Your task to perform on an android device: star an email in the gmail app Image 0: 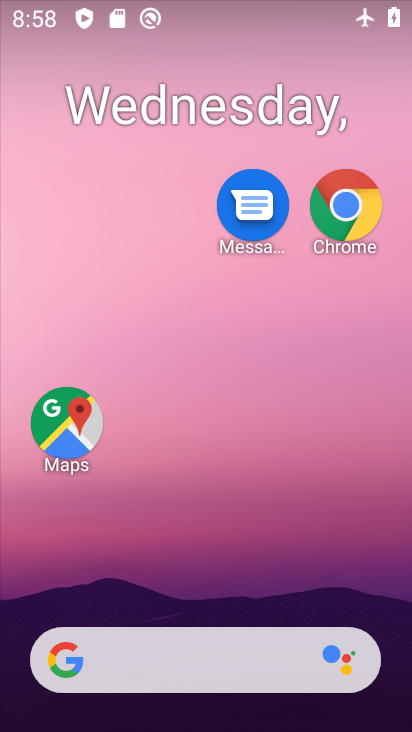
Step 0: drag from (237, 397) to (248, 103)
Your task to perform on an android device: star an email in the gmail app Image 1: 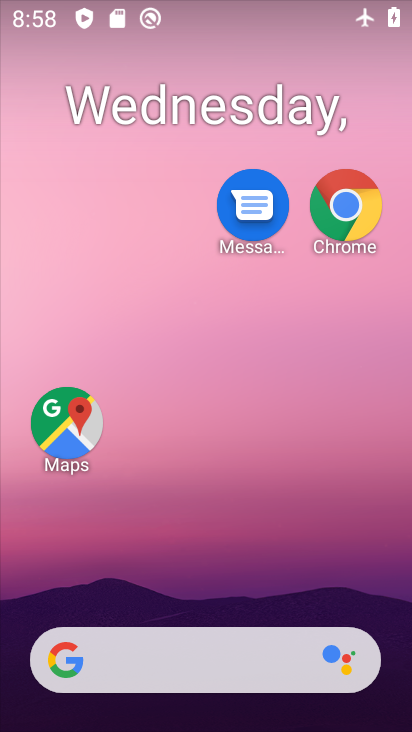
Step 1: drag from (213, 608) to (209, 135)
Your task to perform on an android device: star an email in the gmail app Image 2: 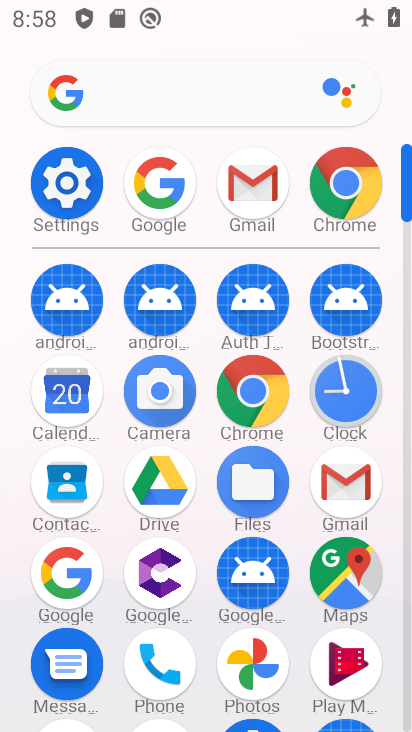
Step 2: click (353, 481)
Your task to perform on an android device: star an email in the gmail app Image 3: 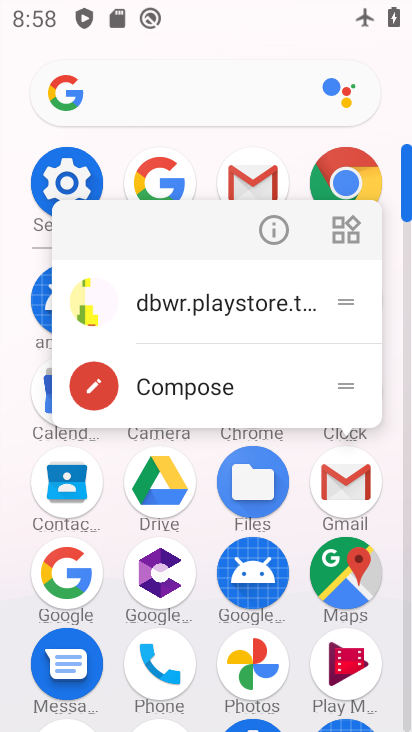
Step 3: click (272, 231)
Your task to perform on an android device: star an email in the gmail app Image 4: 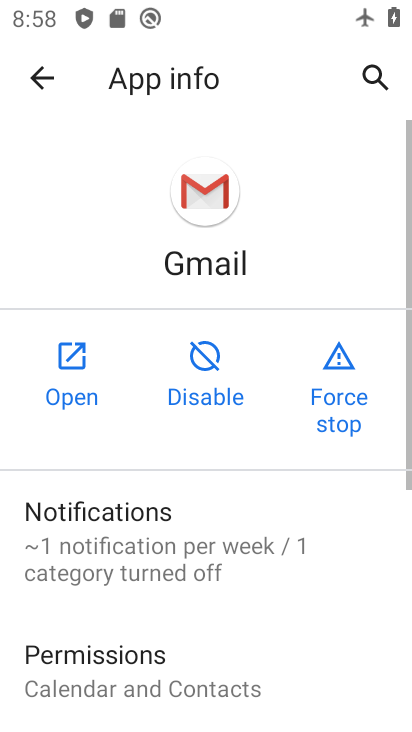
Step 4: click (68, 338)
Your task to perform on an android device: star an email in the gmail app Image 5: 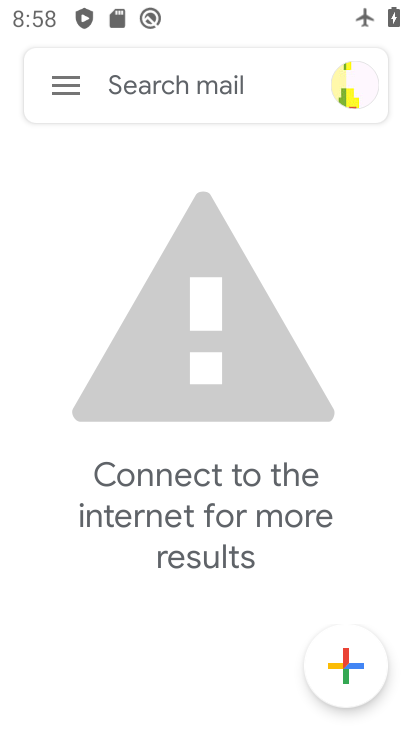
Step 5: click (45, 94)
Your task to perform on an android device: star an email in the gmail app Image 6: 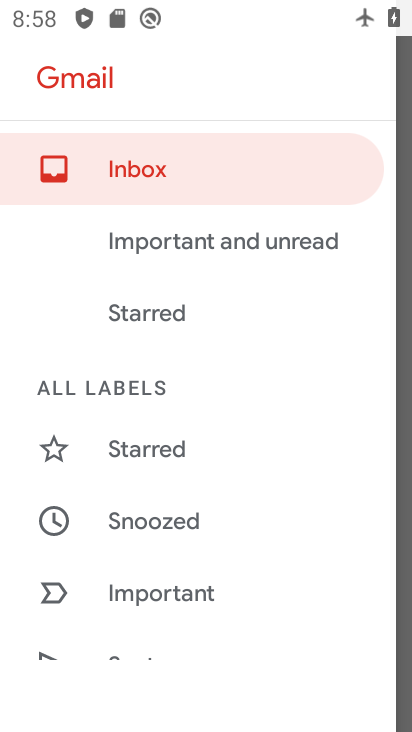
Step 6: task complete